Your task to perform on an android device: change alarm snooze length Image 0: 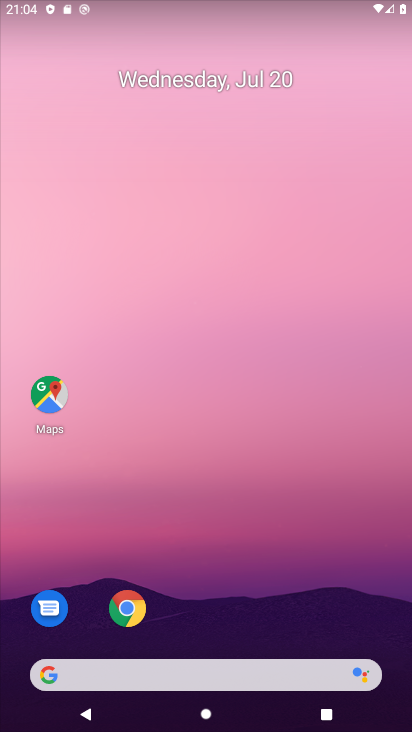
Step 0: drag from (288, 694) to (254, 376)
Your task to perform on an android device: change alarm snooze length Image 1: 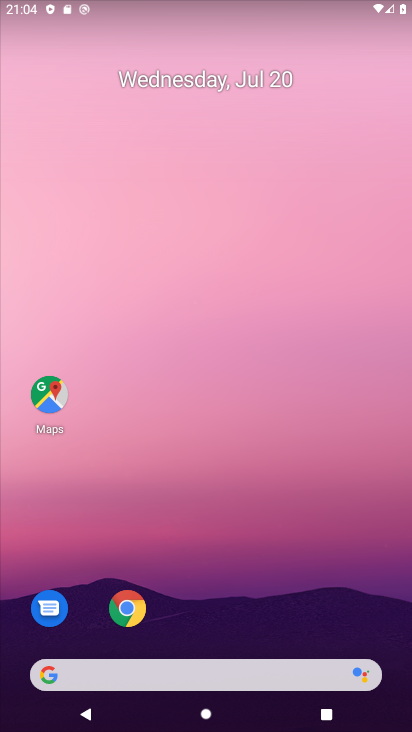
Step 1: drag from (252, 495) to (197, 153)
Your task to perform on an android device: change alarm snooze length Image 2: 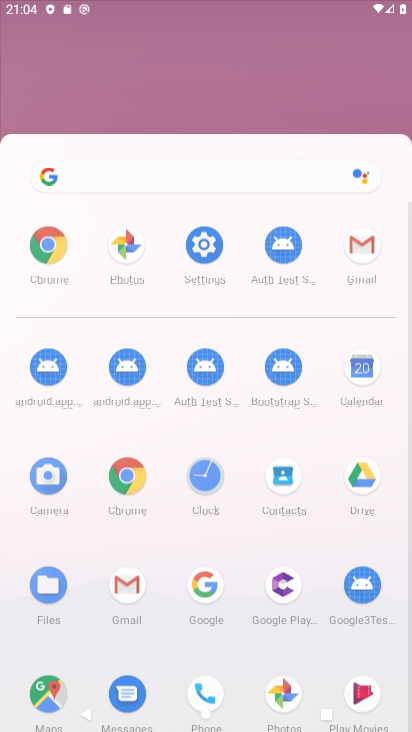
Step 2: drag from (240, 379) to (239, 172)
Your task to perform on an android device: change alarm snooze length Image 3: 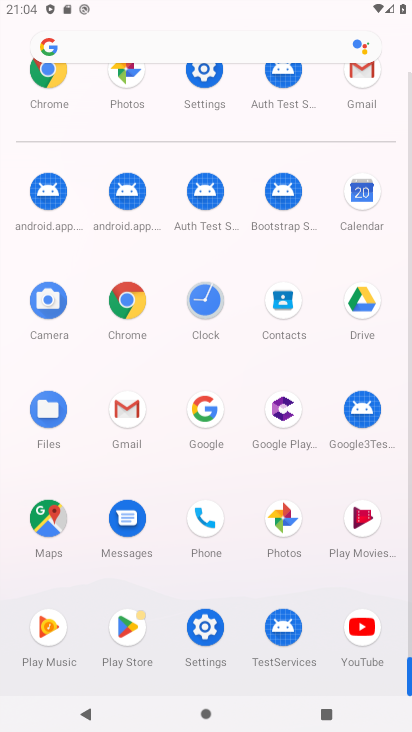
Step 3: drag from (241, 283) to (241, 222)
Your task to perform on an android device: change alarm snooze length Image 4: 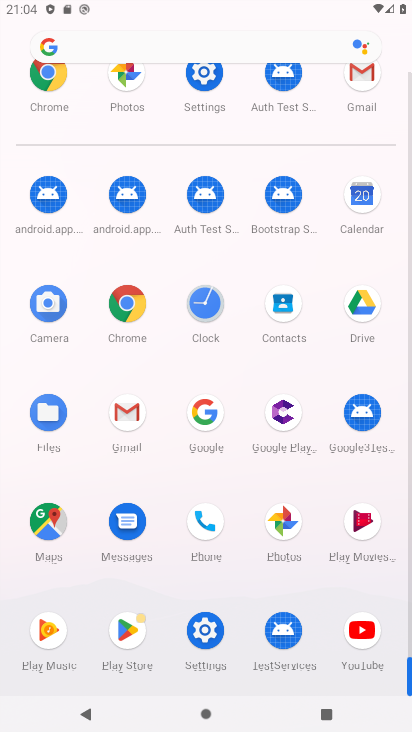
Step 4: click (198, 308)
Your task to perform on an android device: change alarm snooze length Image 5: 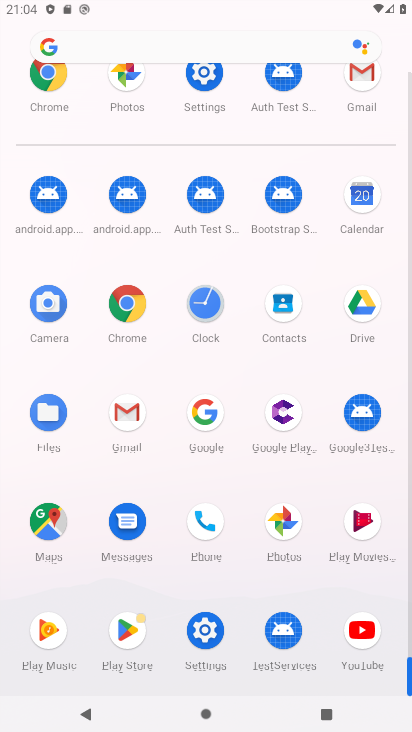
Step 5: click (204, 305)
Your task to perform on an android device: change alarm snooze length Image 6: 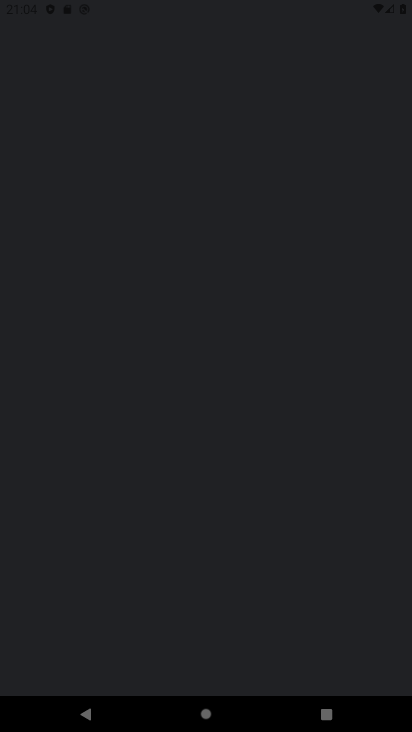
Step 6: click (207, 305)
Your task to perform on an android device: change alarm snooze length Image 7: 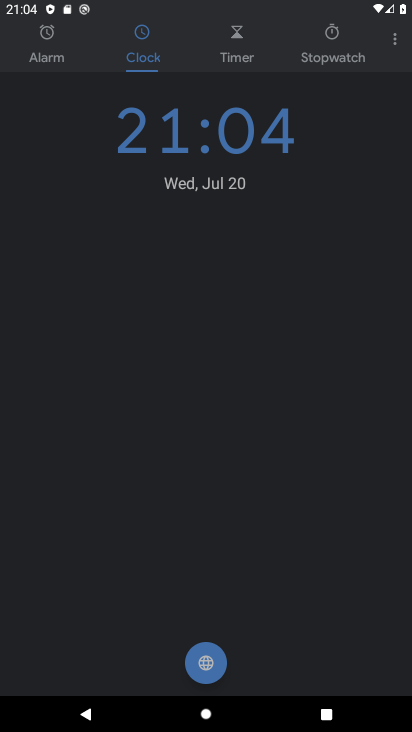
Step 7: click (207, 305)
Your task to perform on an android device: change alarm snooze length Image 8: 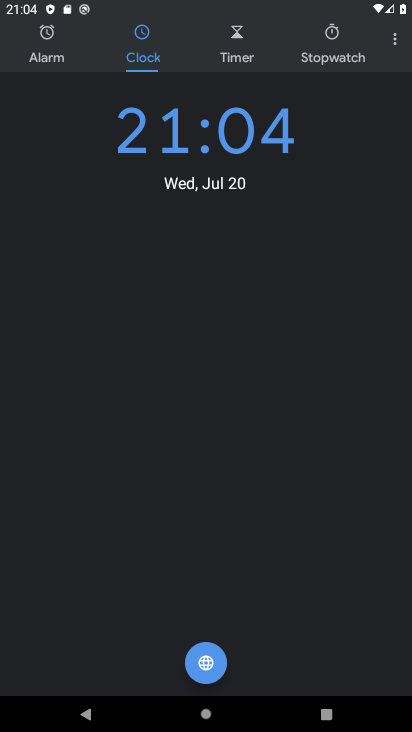
Step 8: click (398, 45)
Your task to perform on an android device: change alarm snooze length Image 9: 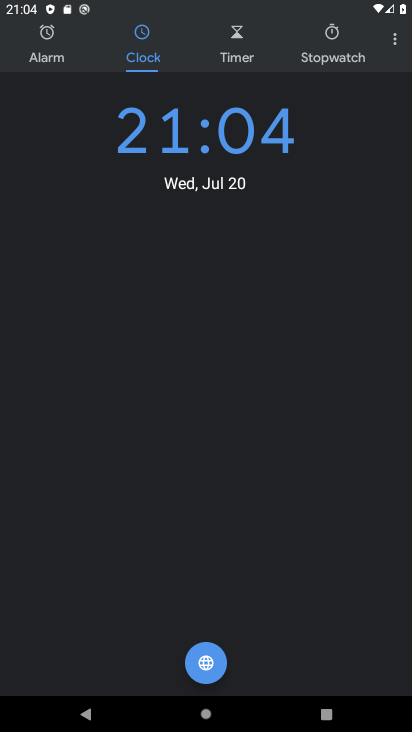
Step 9: click (391, 39)
Your task to perform on an android device: change alarm snooze length Image 10: 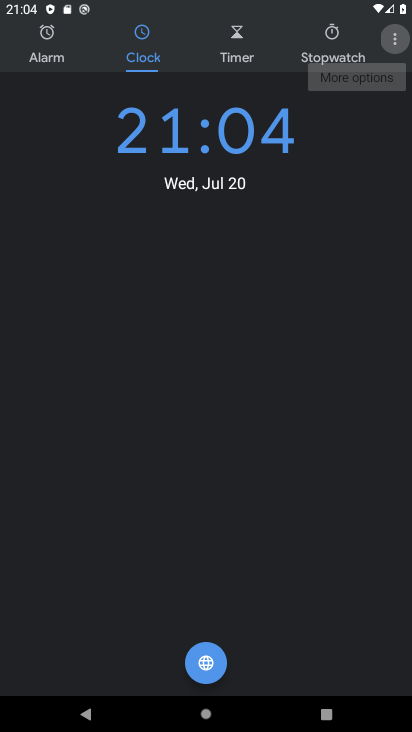
Step 10: click (394, 39)
Your task to perform on an android device: change alarm snooze length Image 11: 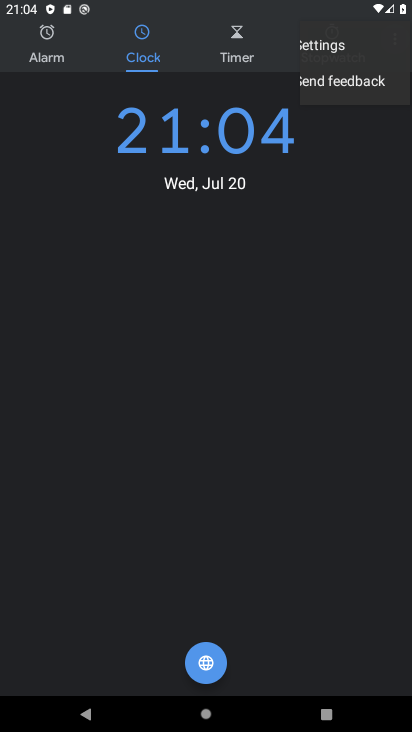
Step 11: click (395, 39)
Your task to perform on an android device: change alarm snooze length Image 12: 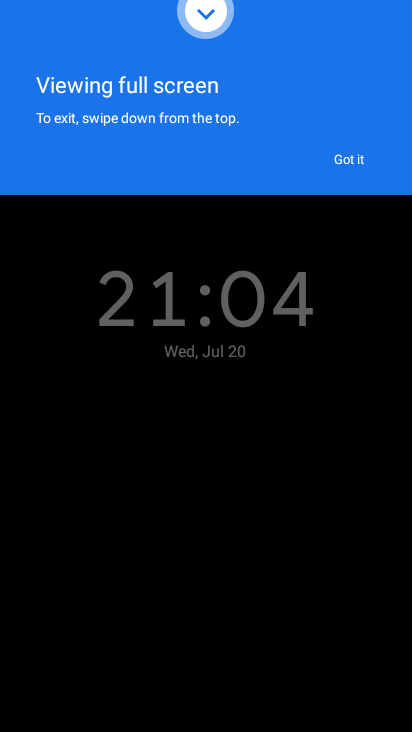
Step 12: click (358, 156)
Your task to perform on an android device: change alarm snooze length Image 13: 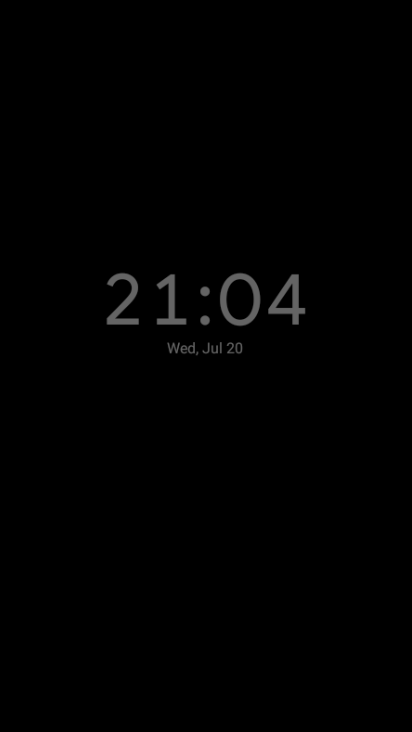
Step 13: click (289, 201)
Your task to perform on an android device: change alarm snooze length Image 14: 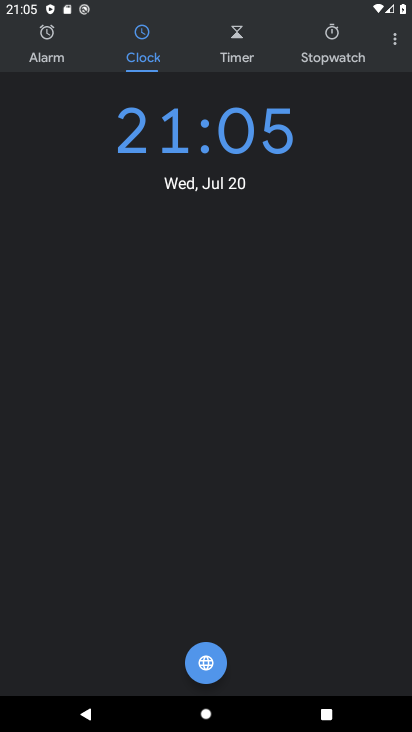
Step 14: press back button
Your task to perform on an android device: change alarm snooze length Image 15: 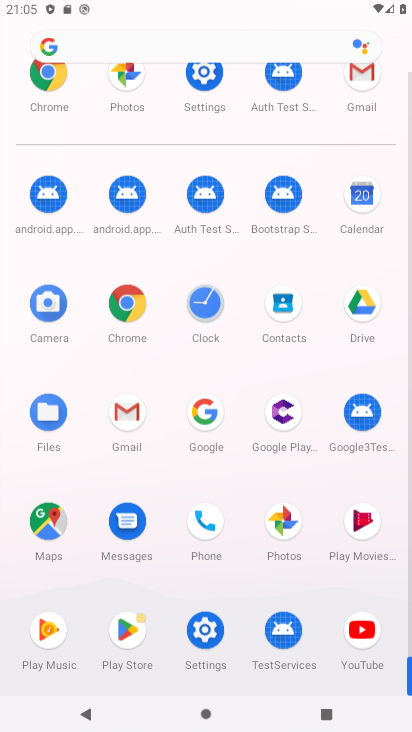
Step 15: click (382, 44)
Your task to perform on an android device: change alarm snooze length Image 16: 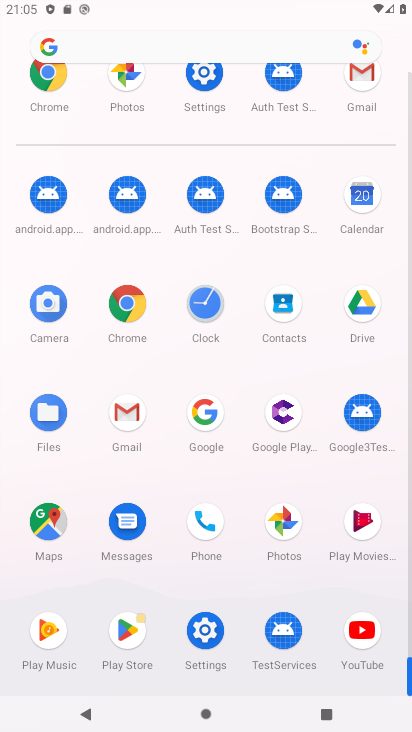
Step 16: click (201, 296)
Your task to perform on an android device: change alarm snooze length Image 17: 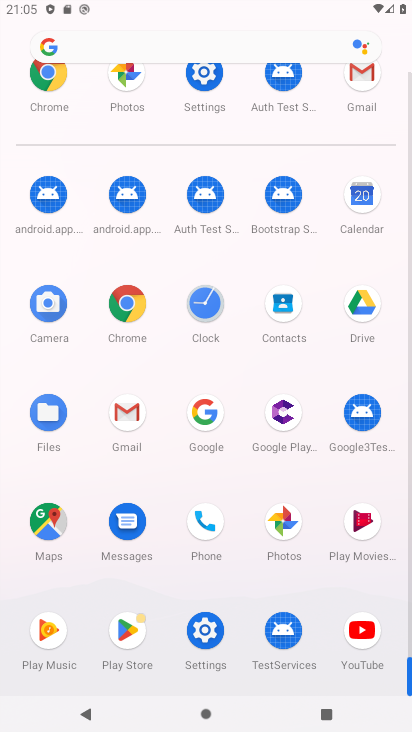
Step 17: click (201, 296)
Your task to perform on an android device: change alarm snooze length Image 18: 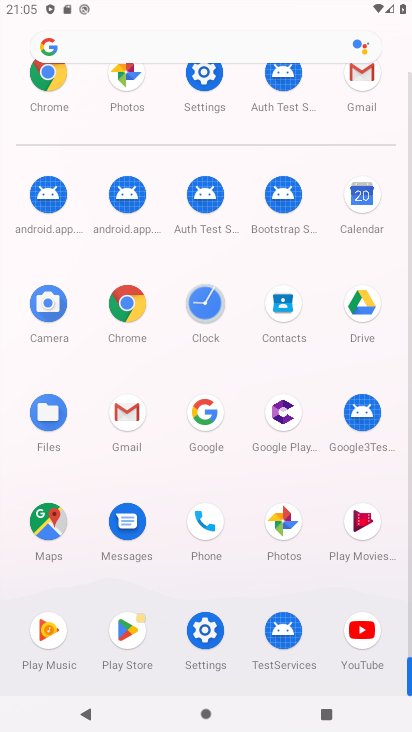
Step 18: click (210, 302)
Your task to perform on an android device: change alarm snooze length Image 19: 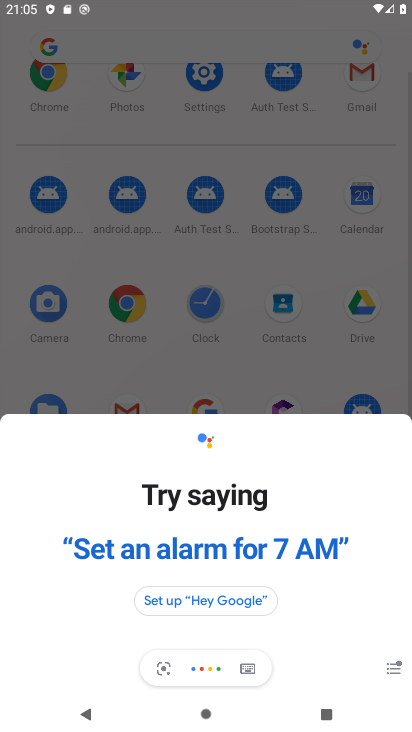
Step 19: click (212, 302)
Your task to perform on an android device: change alarm snooze length Image 20: 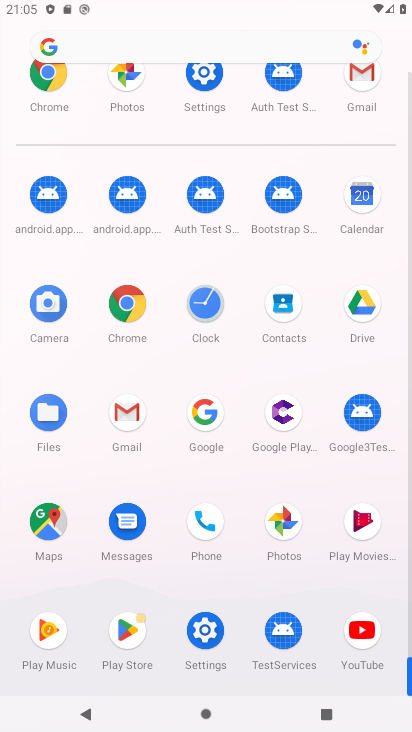
Step 20: click (228, 292)
Your task to perform on an android device: change alarm snooze length Image 21: 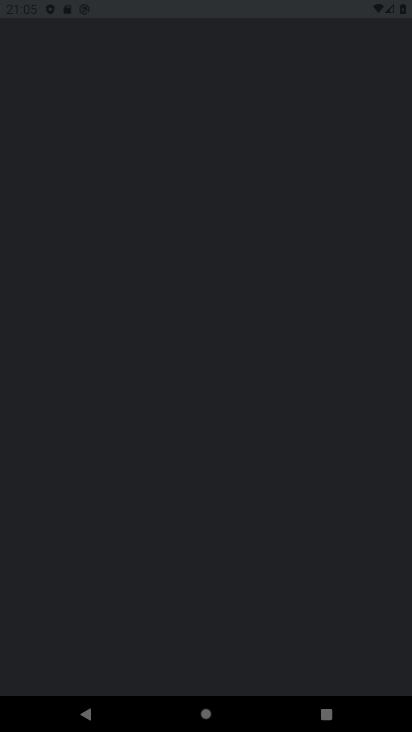
Step 21: click (224, 299)
Your task to perform on an android device: change alarm snooze length Image 22: 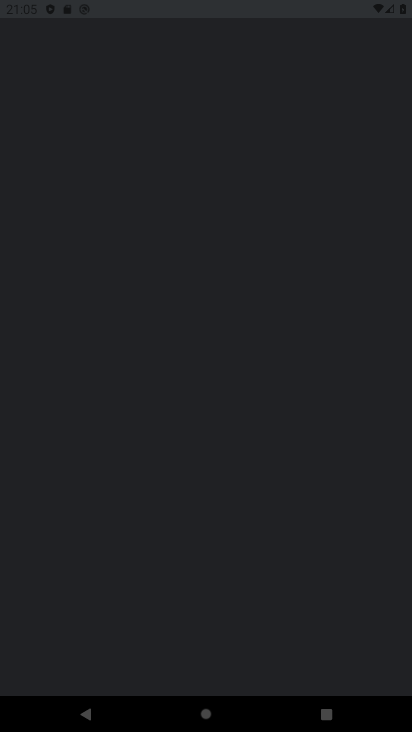
Step 22: click (211, 309)
Your task to perform on an android device: change alarm snooze length Image 23: 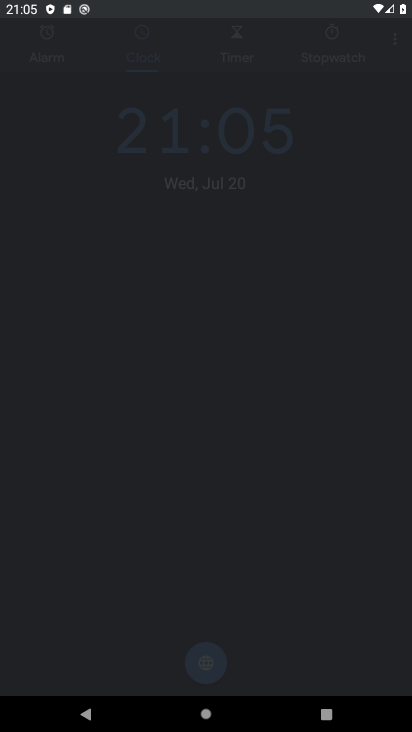
Step 23: click (211, 305)
Your task to perform on an android device: change alarm snooze length Image 24: 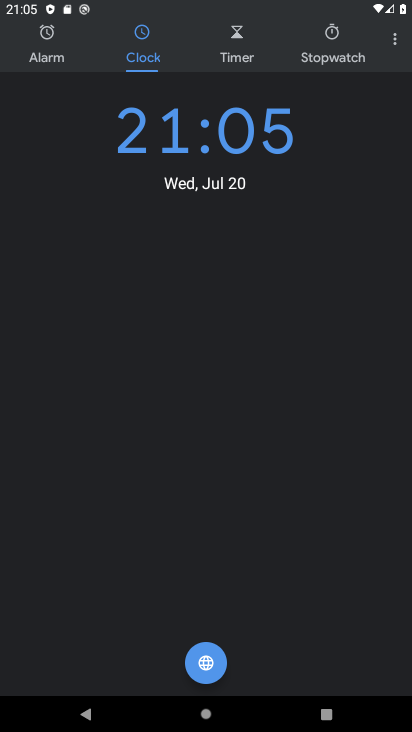
Step 24: click (390, 43)
Your task to perform on an android device: change alarm snooze length Image 25: 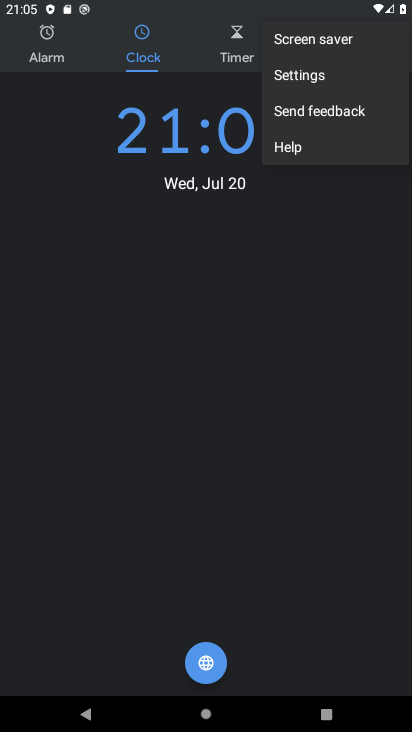
Step 25: click (325, 87)
Your task to perform on an android device: change alarm snooze length Image 26: 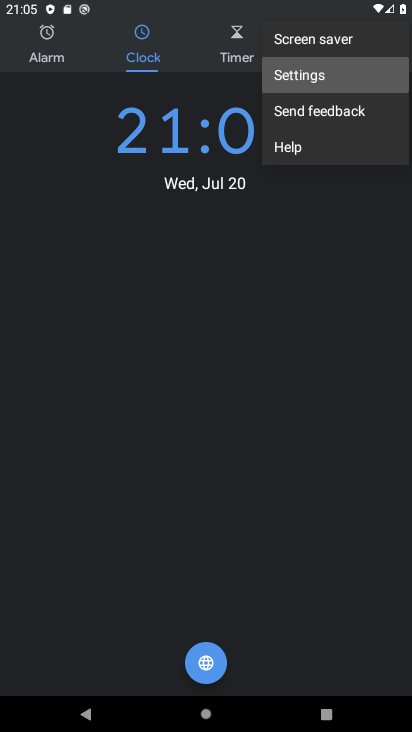
Step 26: click (314, 75)
Your task to perform on an android device: change alarm snooze length Image 27: 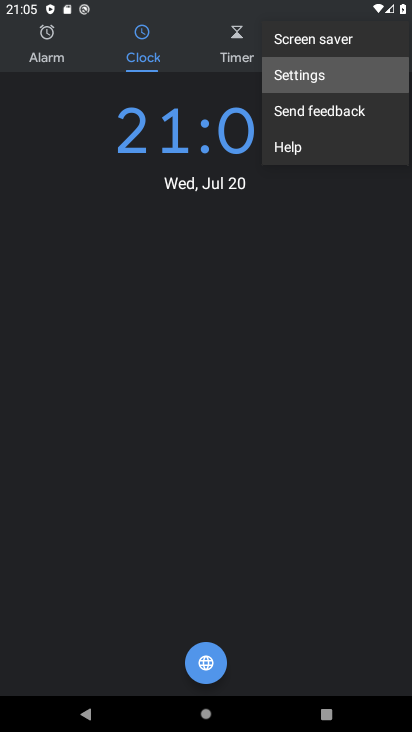
Step 27: click (313, 75)
Your task to perform on an android device: change alarm snooze length Image 28: 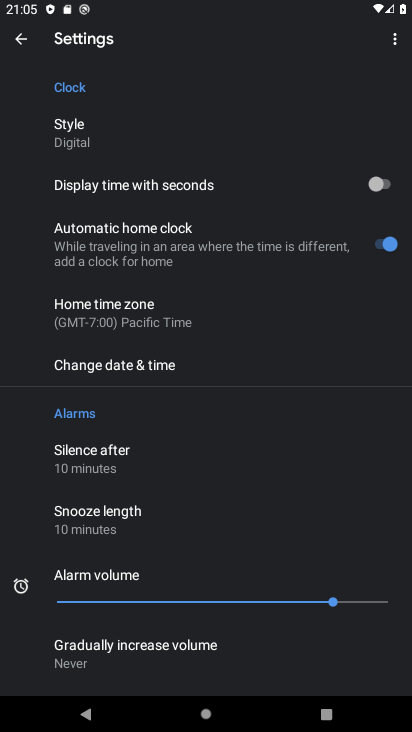
Step 28: click (120, 355)
Your task to perform on an android device: change alarm snooze length Image 29: 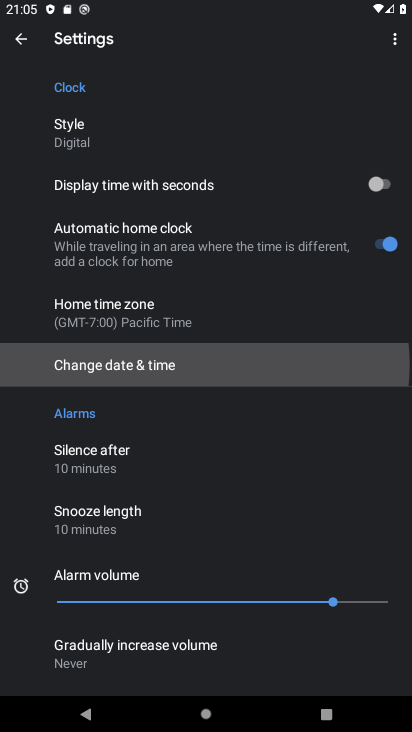
Step 29: click (124, 356)
Your task to perform on an android device: change alarm snooze length Image 30: 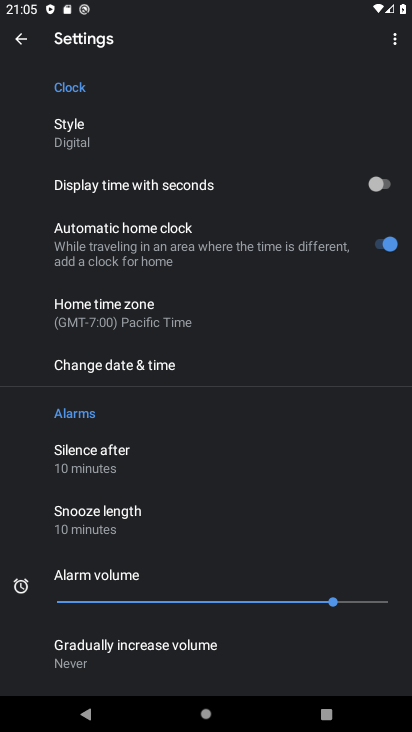
Step 30: click (124, 356)
Your task to perform on an android device: change alarm snooze length Image 31: 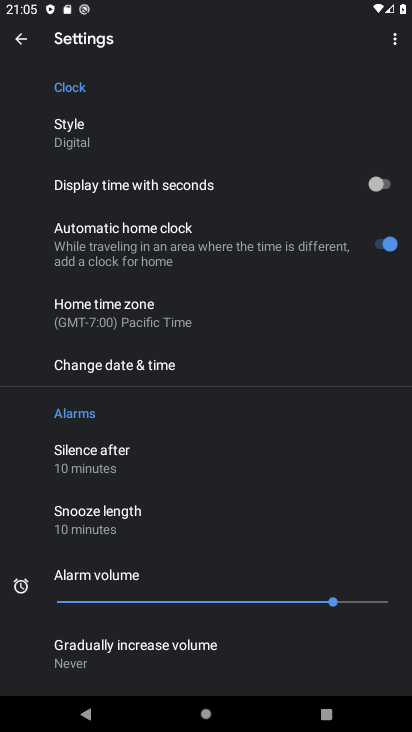
Step 31: click (124, 356)
Your task to perform on an android device: change alarm snooze length Image 32: 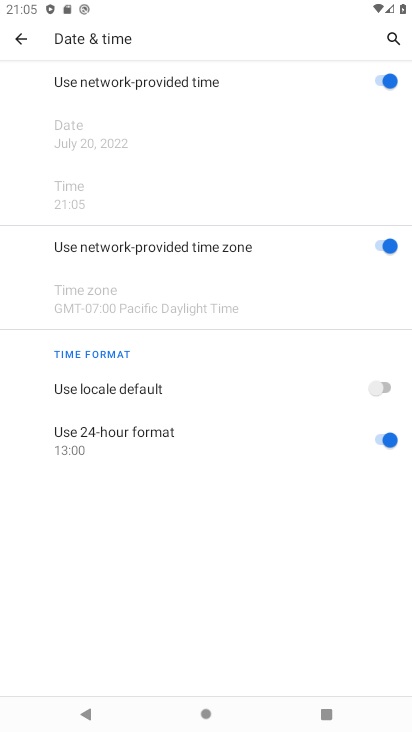
Step 32: click (23, 36)
Your task to perform on an android device: change alarm snooze length Image 33: 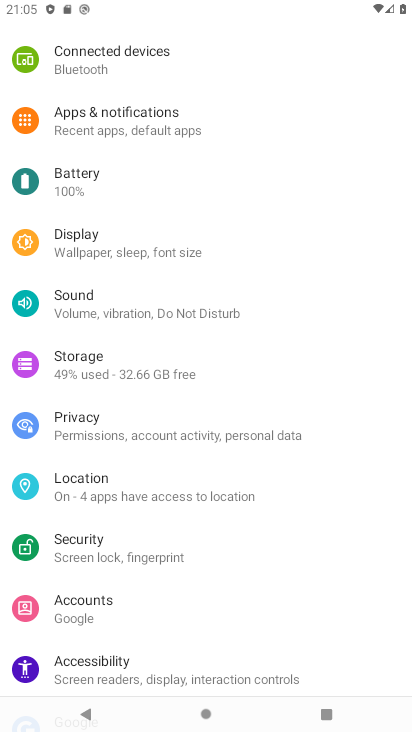
Step 33: task complete